Your task to perform on an android device: turn off data saver in the chrome app Image 0: 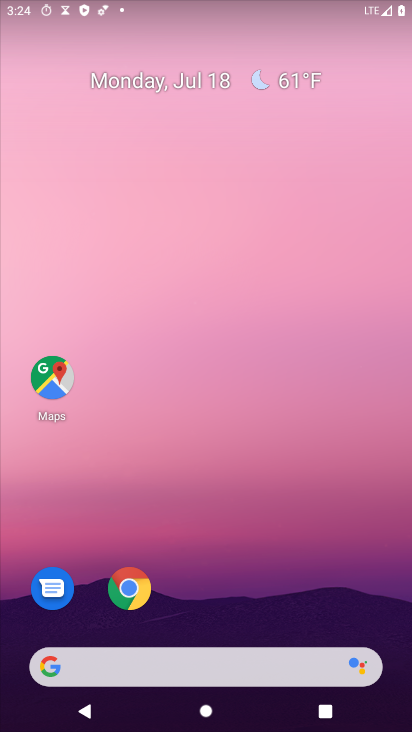
Step 0: drag from (306, 594) to (409, 13)
Your task to perform on an android device: turn off data saver in the chrome app Image 1: 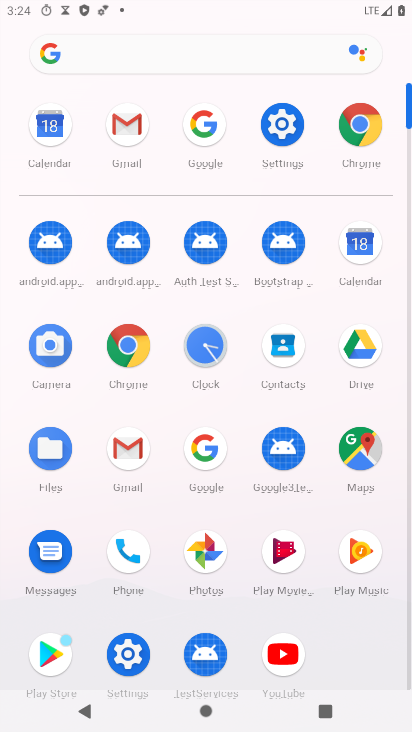
Step 1: click (354, 120)
Your task to perform on an android device: turn off data saver in the chrome app Image 2: 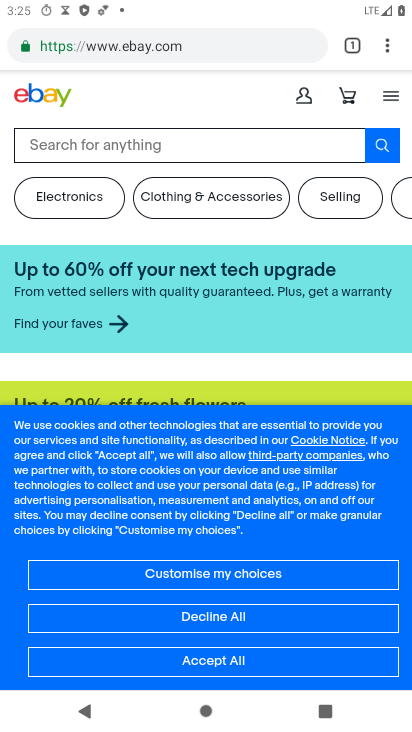
Step 2: drag from (387, 46) to (241, 542)
Your task to perform on an android device: turn off data saver in the chrome app Image 3: 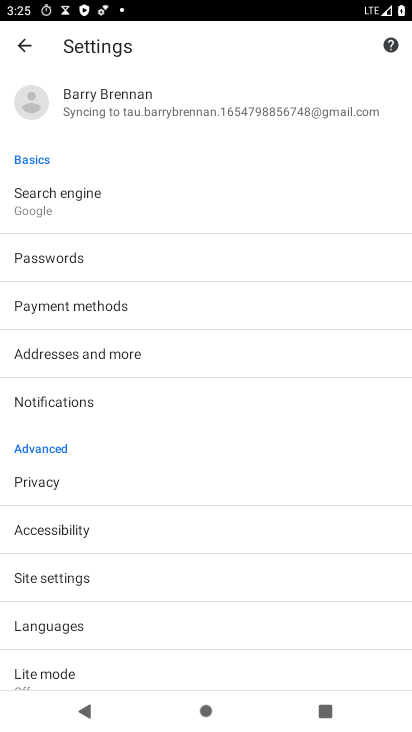
Step 3: drag from (131, 600) to (149, 153)
Your task to perform on an android device: turn off data saver in the chrome app Image 4: 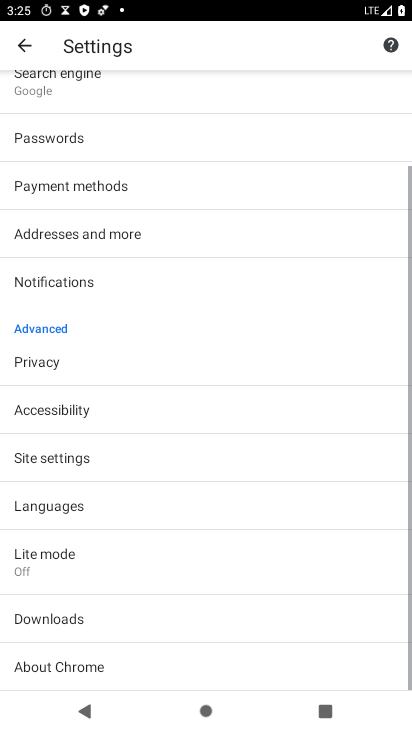
Step 4: click (57, 553)
Your task to perform on an android device: turn off data saver in the chrome app Image 5: 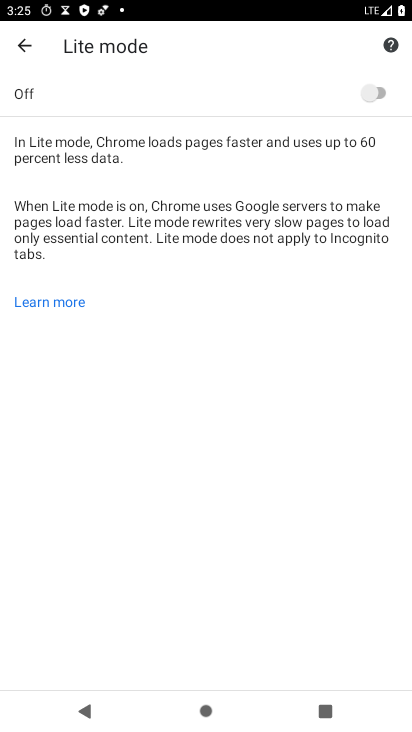
Step 5: task complete